Your task to perform on an android device: turn on sleep mode Image 0: 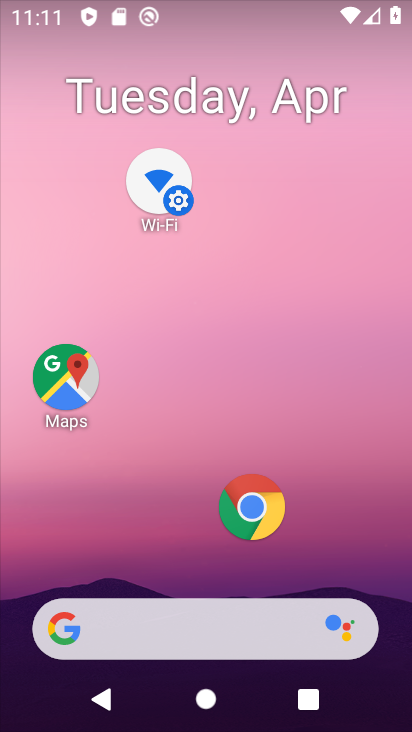
Step 0: drag from (31, 690) to (351, 243)
Your task to perform on an android device: turn on sleep mode Image 1: 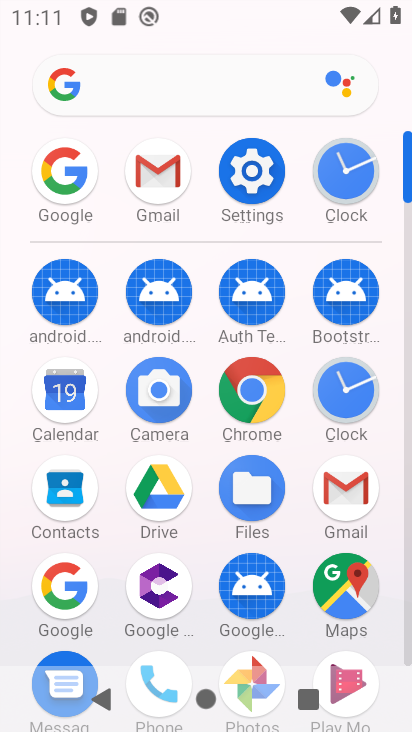
Step 1: click (274, 175)
Your task to perform on an android device: turn on sleep mode Image 2: 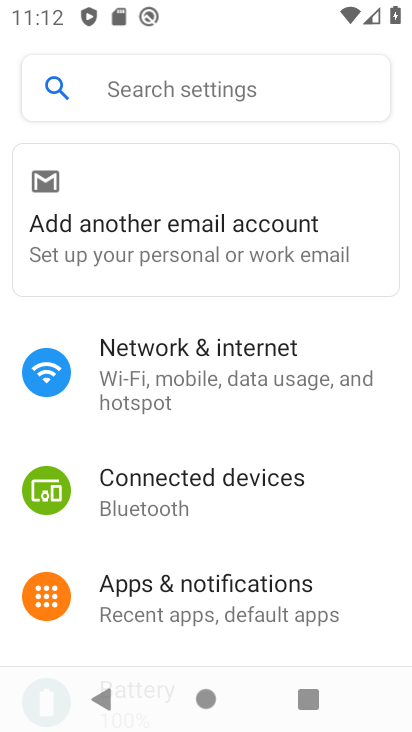
Step 2: task complete